Your task to perform on an android device: uninstall "PlayWell" Image 0: 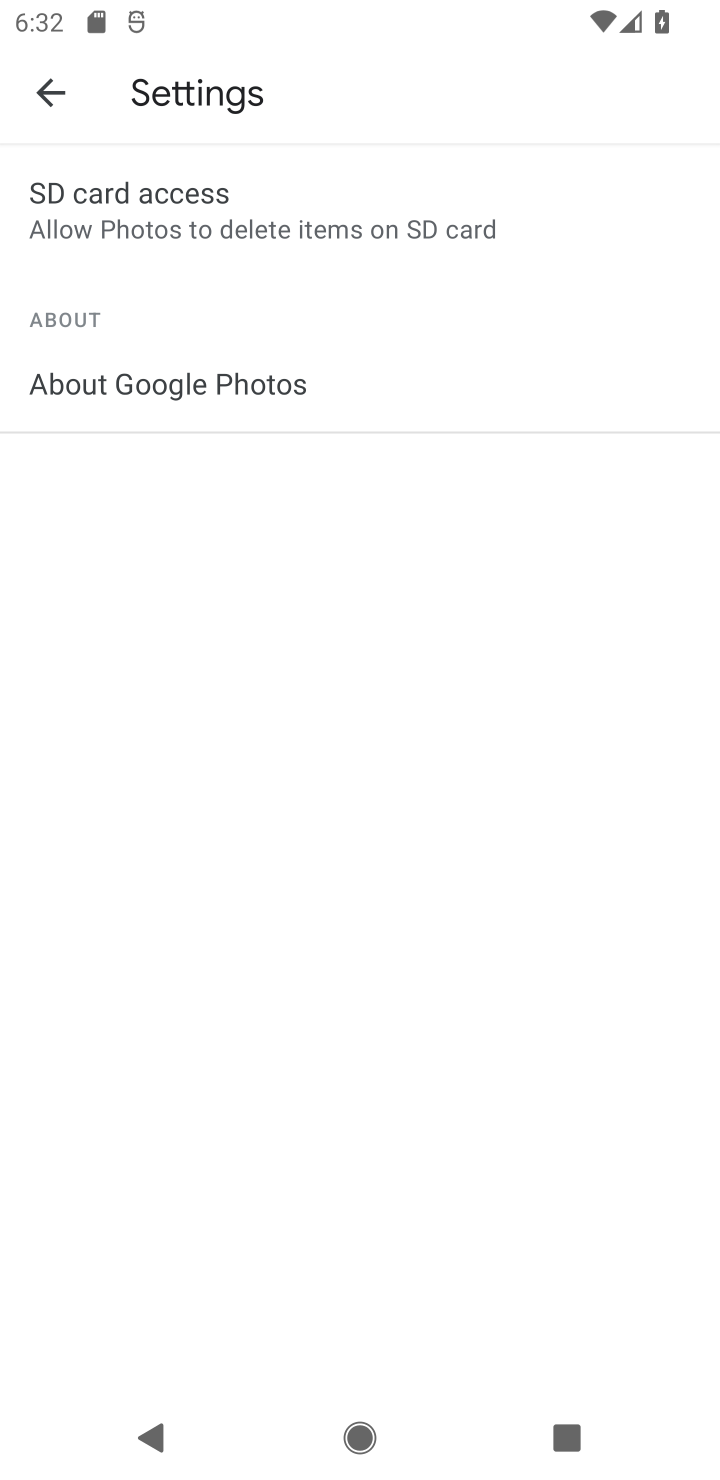
Step 0: press home button
Your task to perform on an android device: uninstall "PlayWell" Image 1: 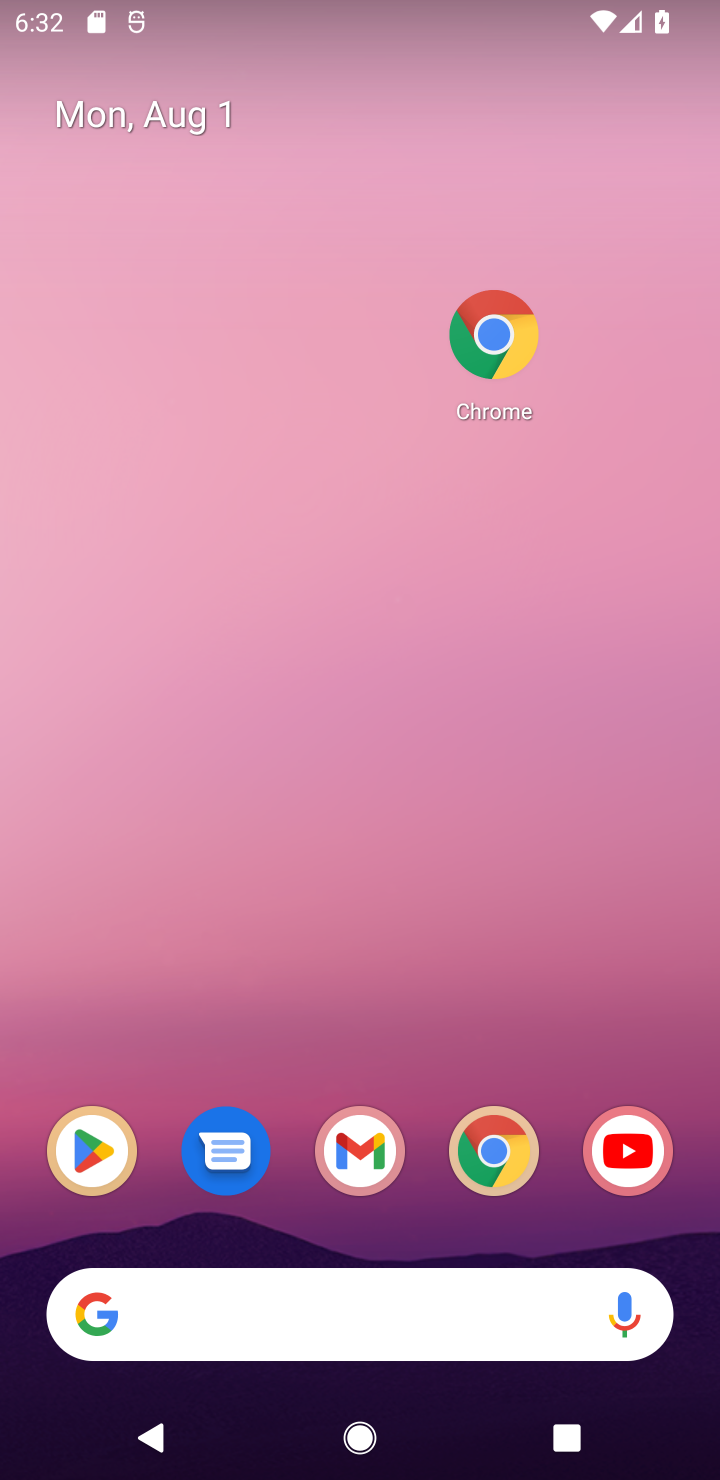
Step 1: click (84, 1186)
Your task to perform on an android device: uninstall "PlayWell" Image 2: 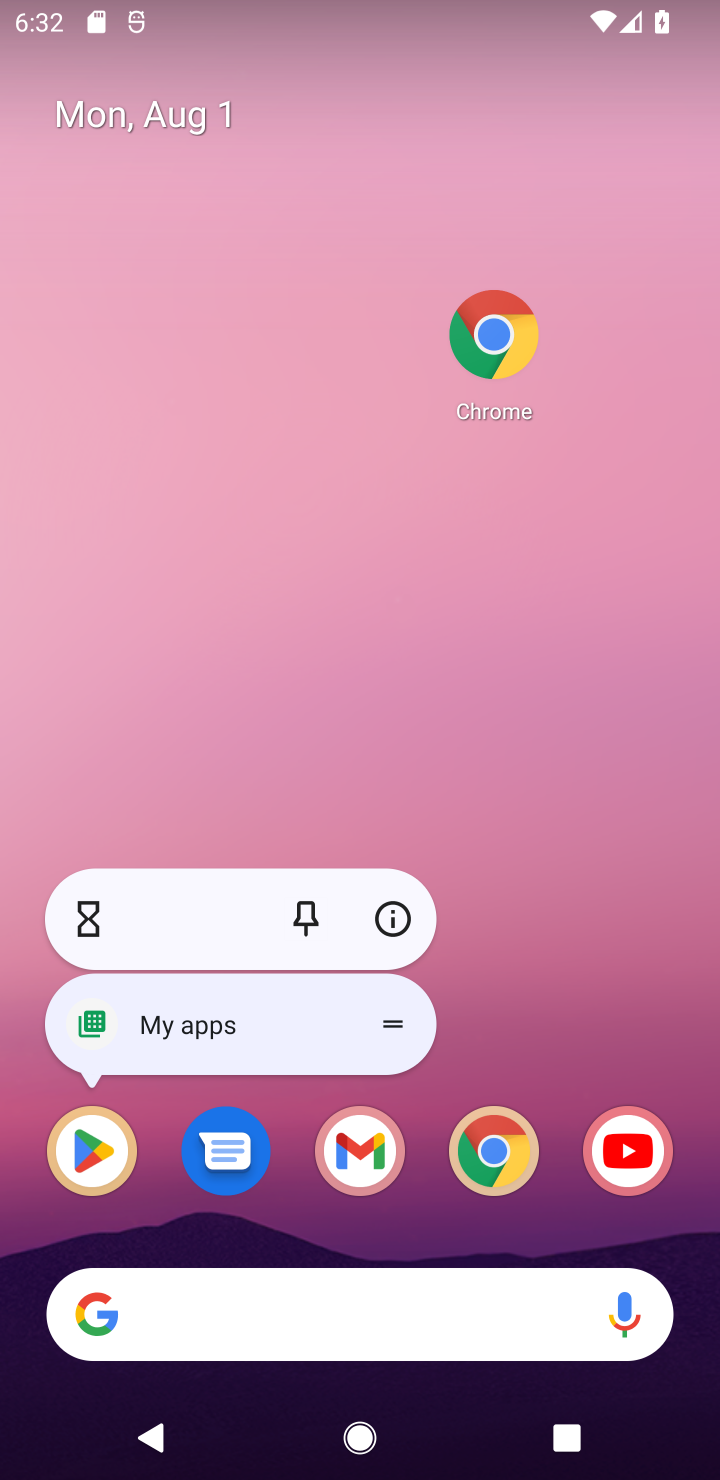
Step 2: click (88, 1177)
Your task to perform on an android device: uninstall "PlayWell" Image 3: 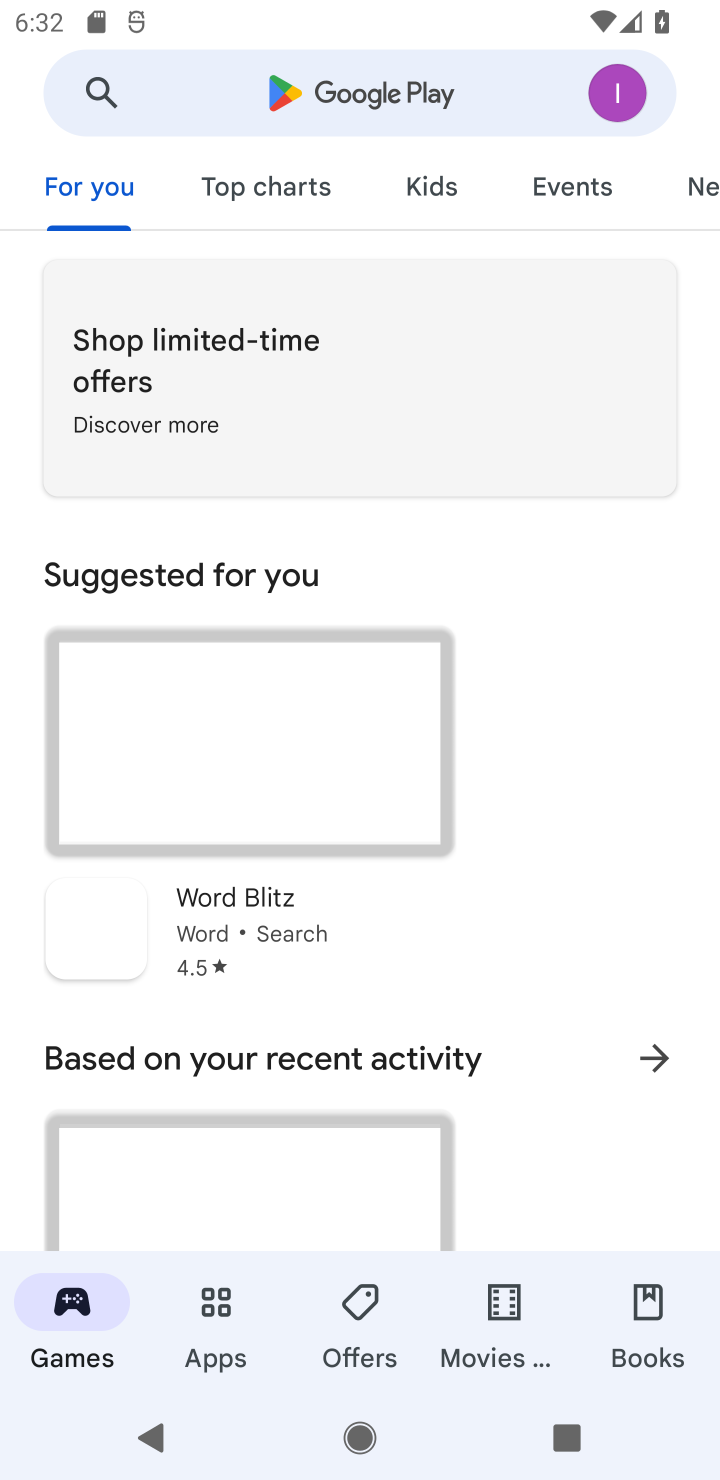
Step 3: click (289, 89)
Your task to perform on an android device: uninstall "PlayWell" Image 4: 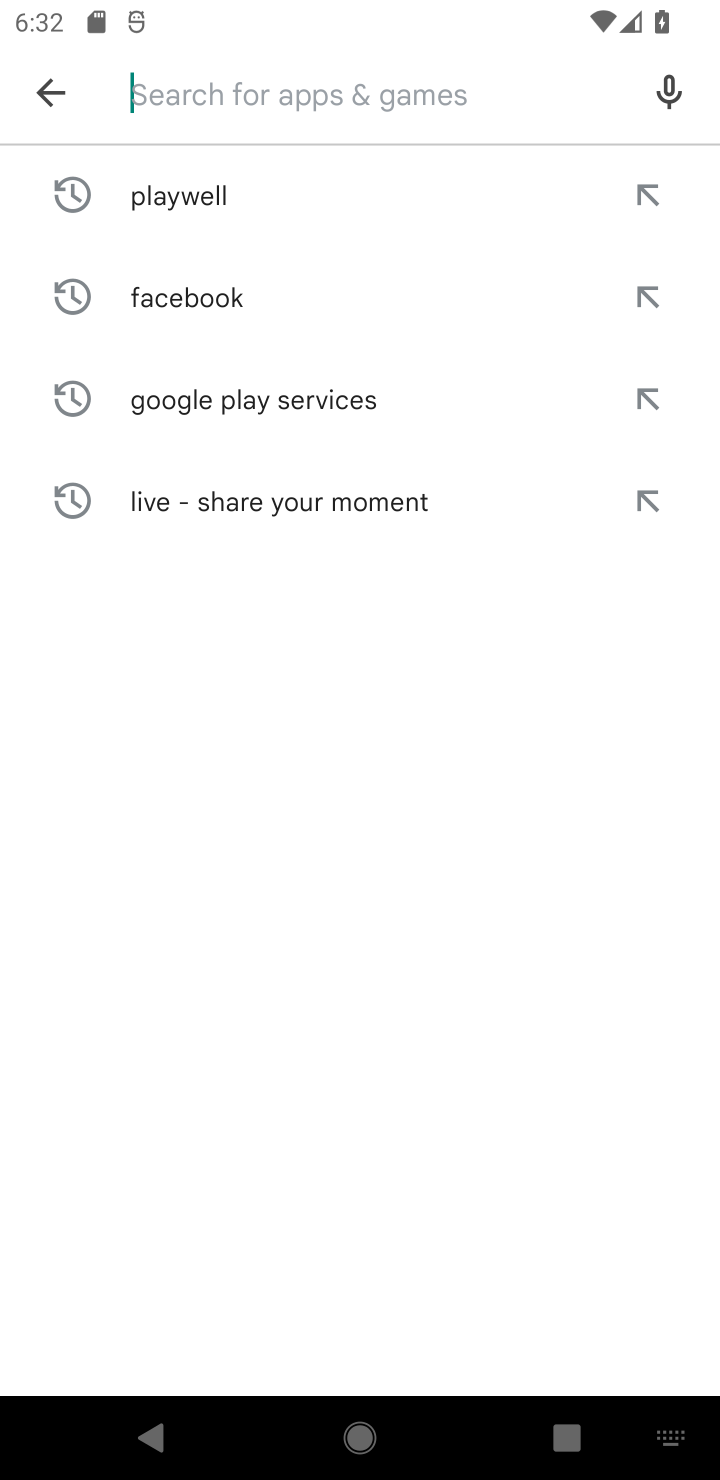
Step 4: type "PlayWell"
Your task to perform on an android device: uninstall "PlayWell" Image 5: 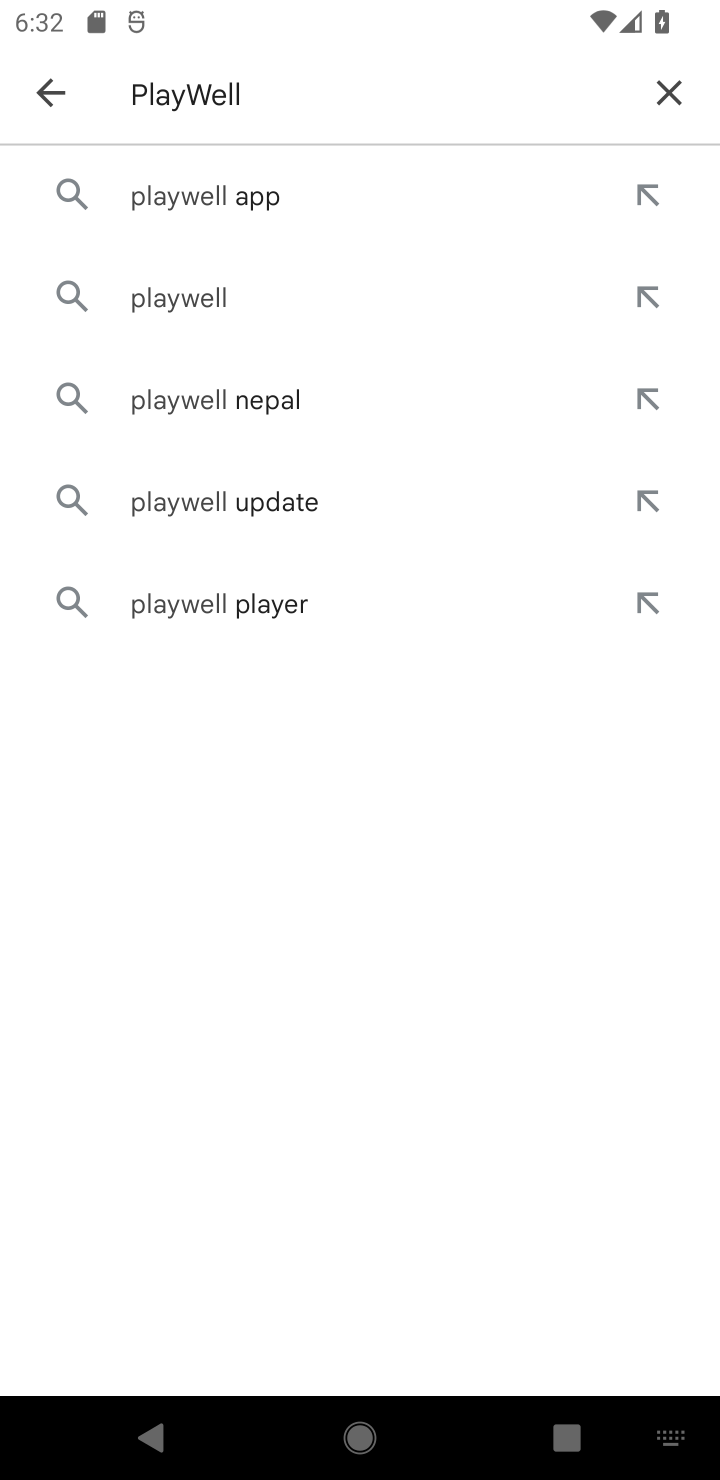
Step 5: click (217, 215)
Your task to perform on an android device: uninstall "PlayWell" Image 6: 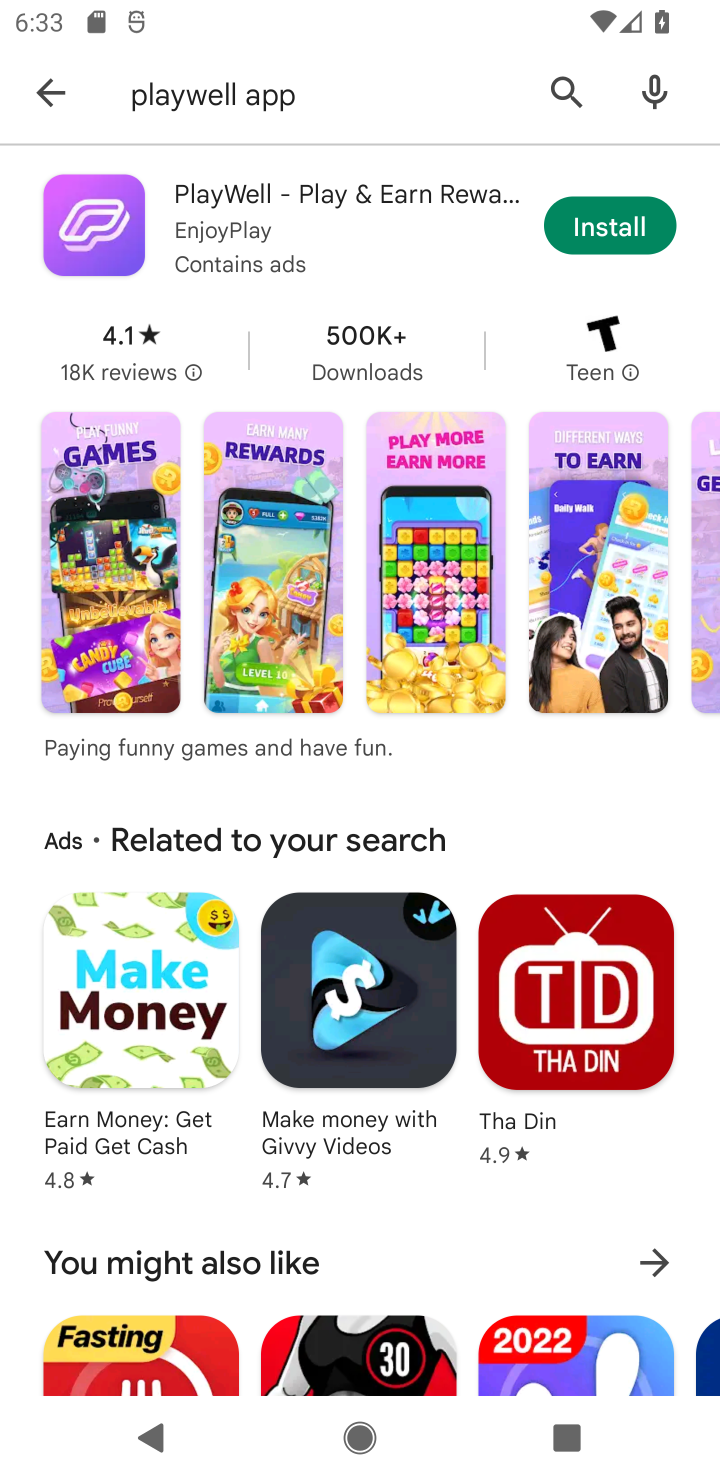
Step 6: task complete